Your task to perform on an android device: Go to Wikipedia Image 0: 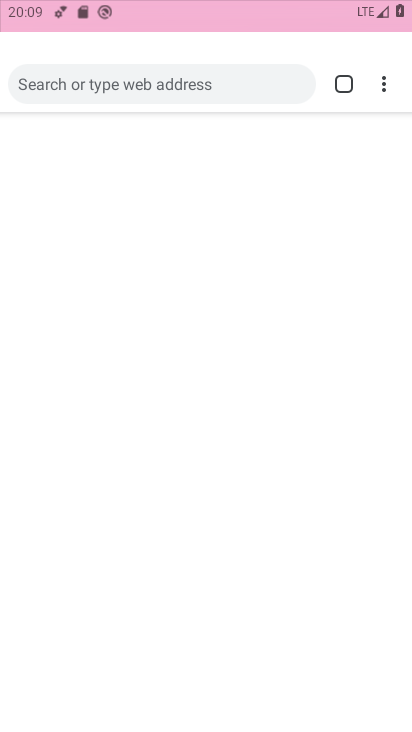
Step 0: click (337, 487)
Your task to perform on an android device: Go to Wikipedia Image 1: 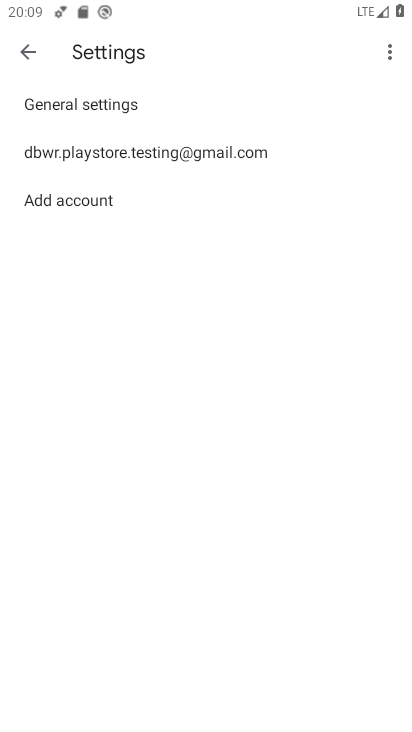
Step 1: press home button
Your task to perform on an android device: Go to Wikipedia Image 2: 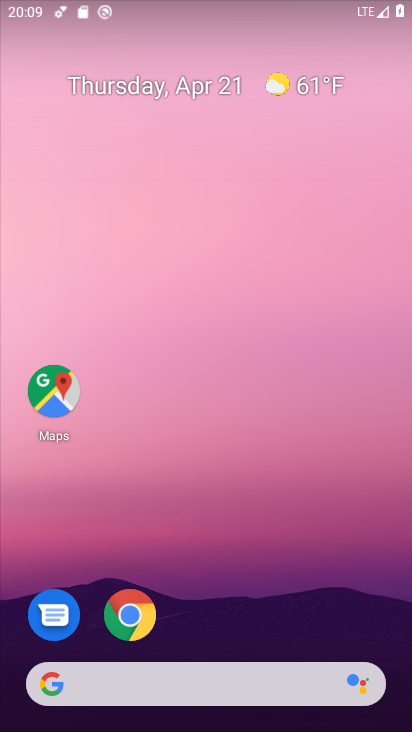
Step 2: drag from (194, 643) to (204, 114)
Your task to perform on an android device: Go to Wikipedia Image 3: 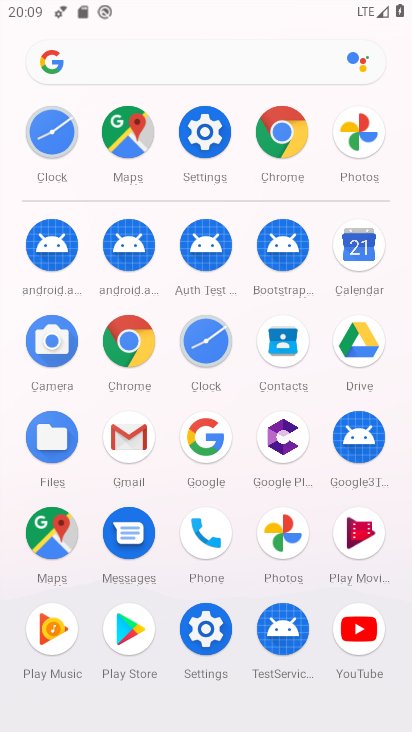
Step 3: click (369, 244)
Your task to perform on an android device: Go to Wikipedia Image 4: 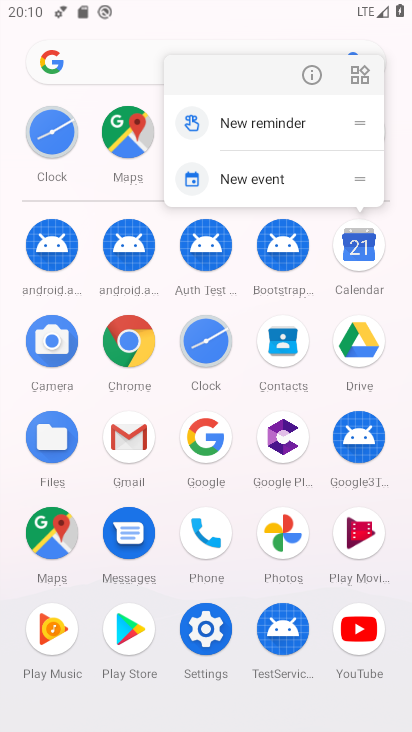
Step 4: click (124, 345)
Your task to perform on an android device: Go to Wikipedia Image 5: 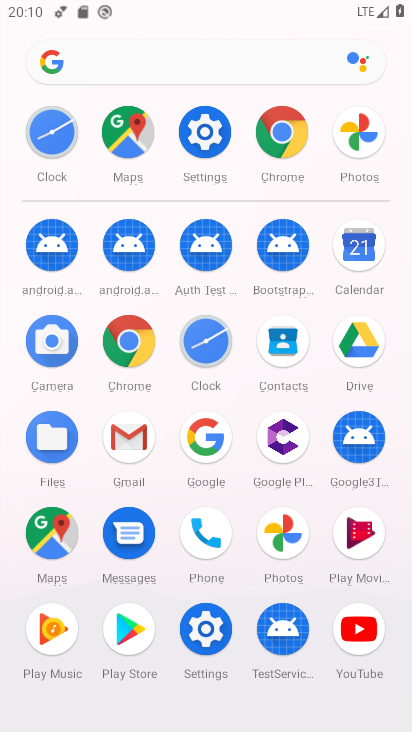
Step 5: click (125, 342)
Your task to perform on an android device: Go to Wikipedia Image 6: 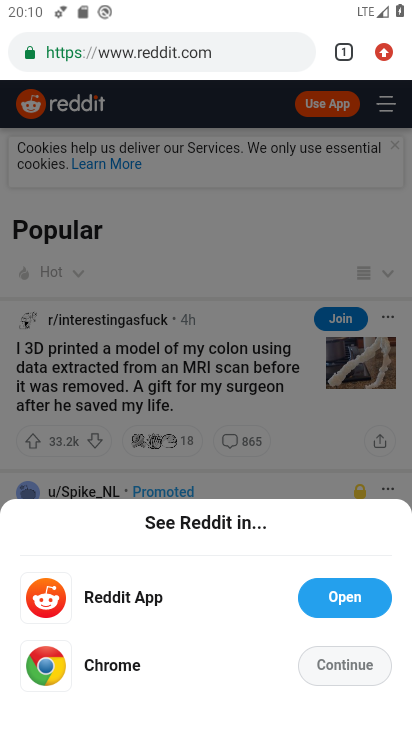
Step 6: click (390, 61)
Your task to perform on an android device: Go to Wikipedia Image 7: 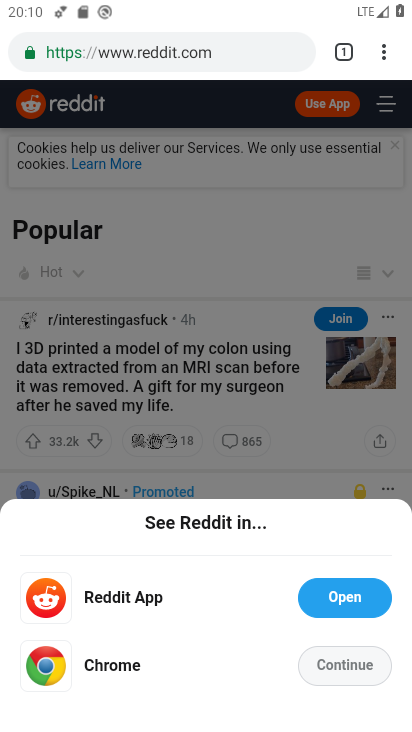
Step 7: drag from (164, 387) to (267, 4)
Your task to perform on an android device: Go to Wikipedia Image 8: 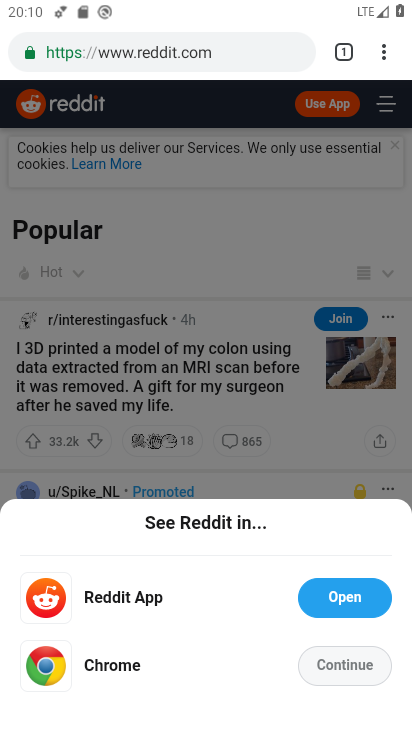
Step 8: click (194, 56)
Your task to perform on an android device: Go to Wikipedia Image 9: 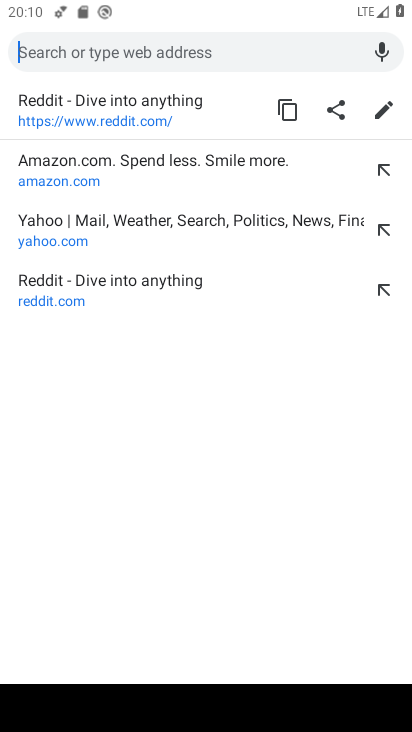
Step 9: type "wikipedia"
Your task to perform on an android device: Go to Wikipedia Image 10: 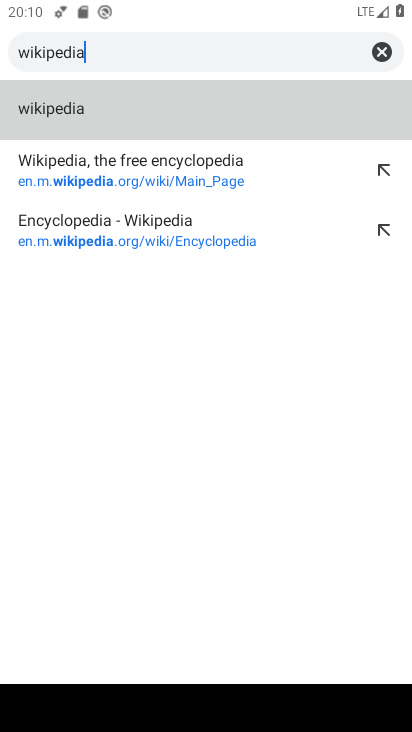
Step 10: click (54, 114)
Your task to perform on an android device: Go to Wikipedia Image 11: 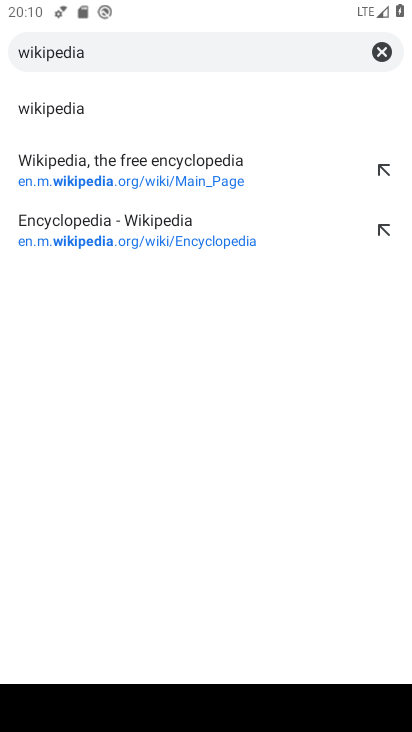
Step 11: click (44, 112)
Your task to perform on an android device: Go to Wikipedia Image 12: 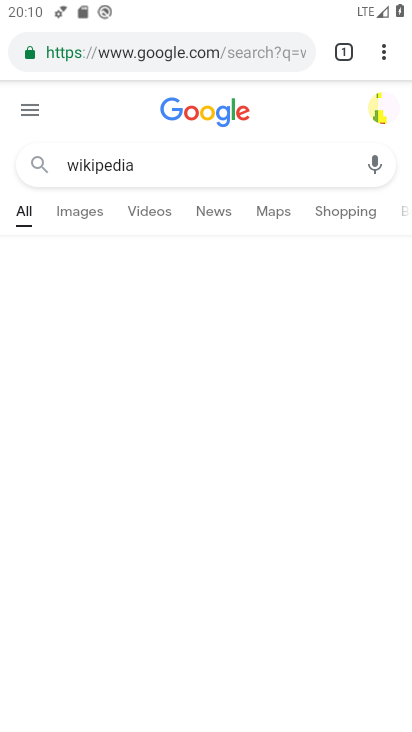
Step 12: drag from (230, 627) to (264, 67)
Your task to perform on an android device: Go to Wikipedia Image 13: 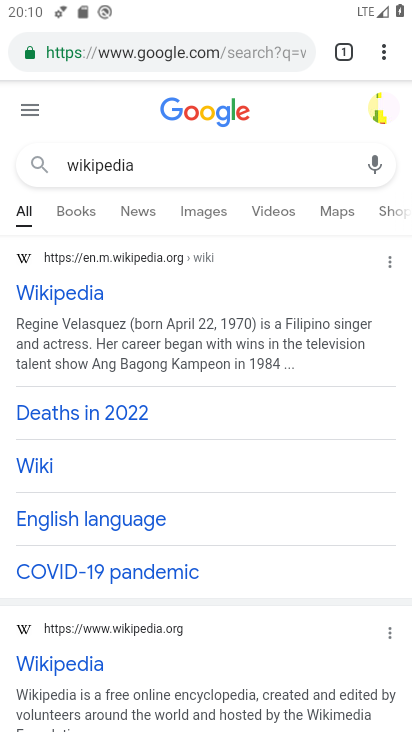
Step 13: click (74, 298)
Your task to perform on an android device: Go to Wikipedia Image 14: 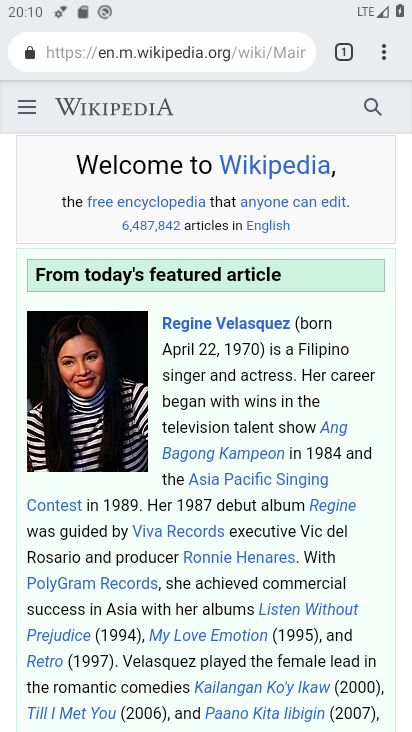
Step 14: task complete